Your task to perform on an android device: open the mobile data screen to see how much data has been used Image 0: 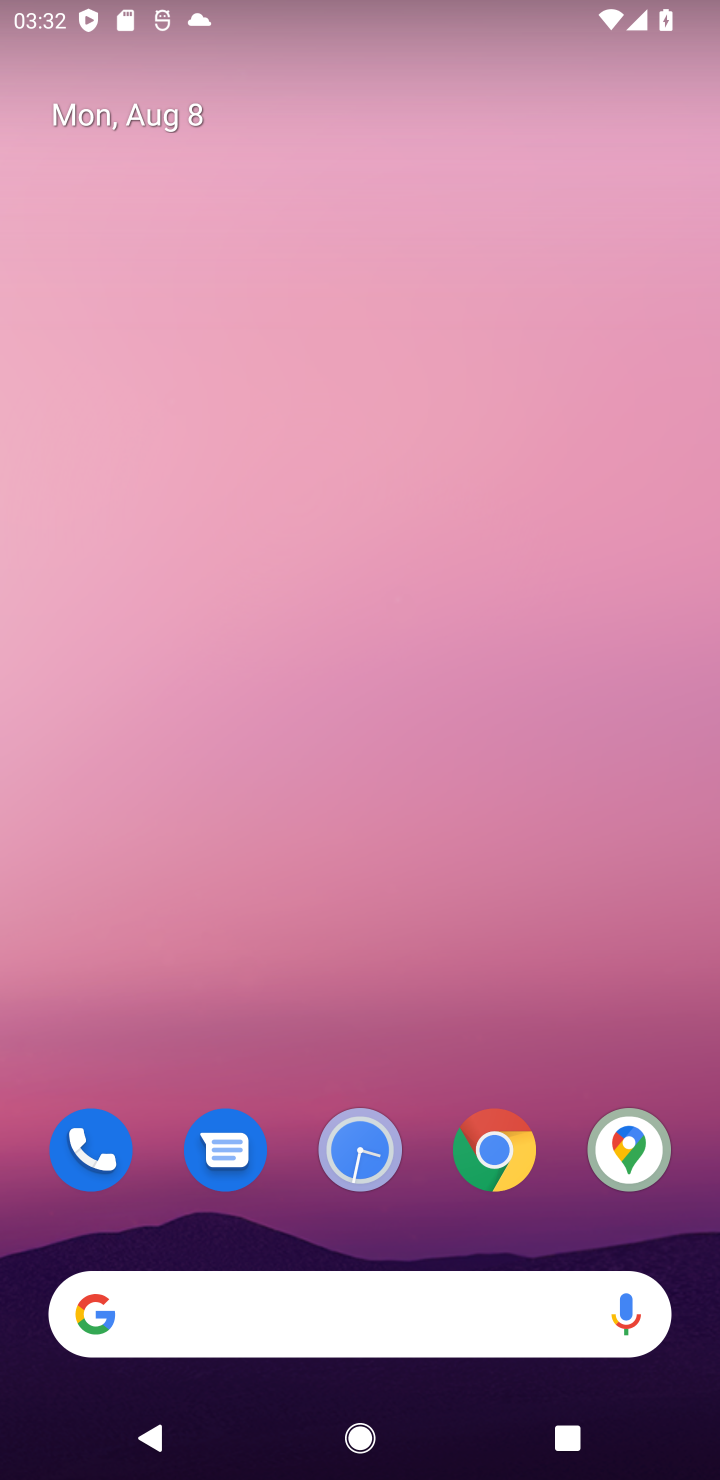
Step 0: drag from (73, 1406) to (455, 518)
Your task to perform on an android device: open the mobile data screen to see how much data has been used Image 1: 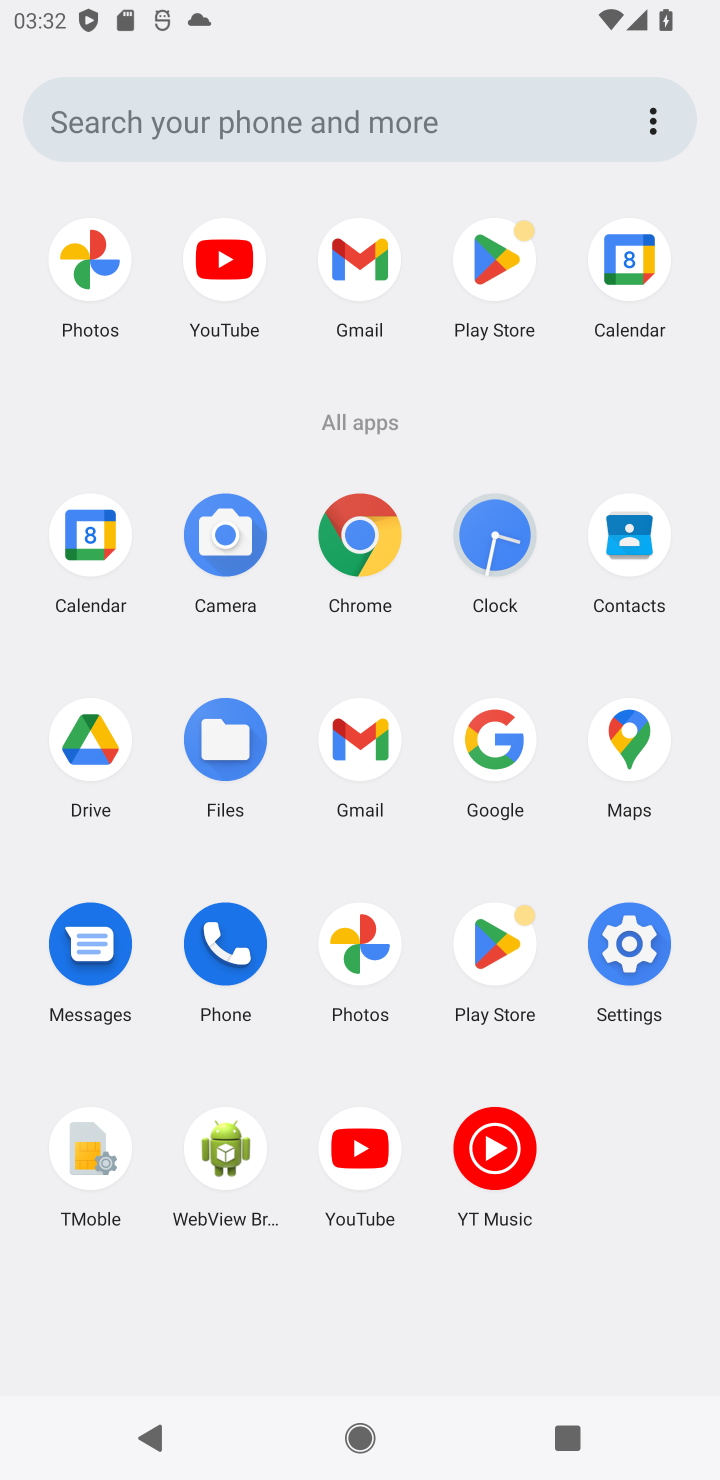
Step 1: click (640, 978)
Your task to perform on an android device: open the mobile data screen to see how much data has been used Image 2: 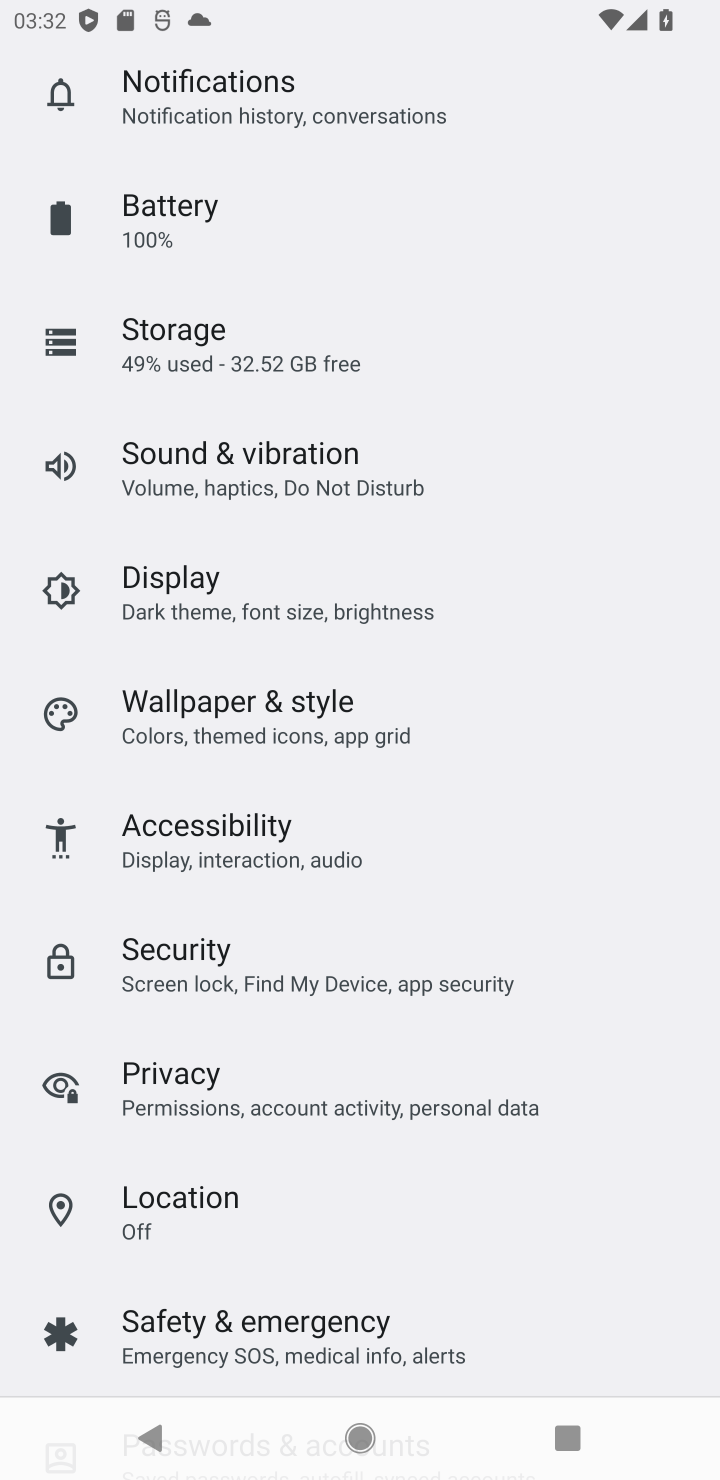
Step 2: drag from (572, 152) to (489, 912)
Your task to perform on an android device: open the mobile data screen to see how much data has been used Image 3: 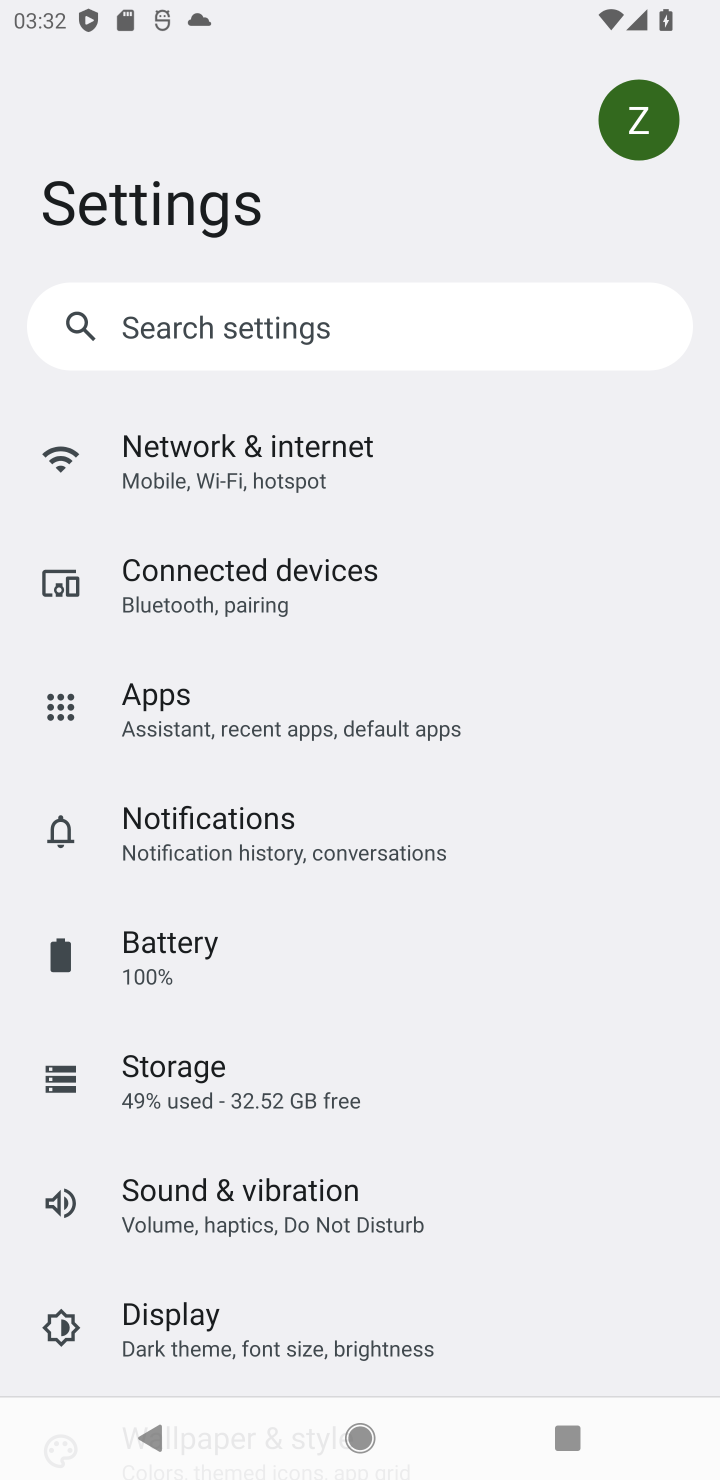
Step 3: click (250, 466)
Your task to perform on an android device: open the mobile data screen to see how much data has been used Image 4: 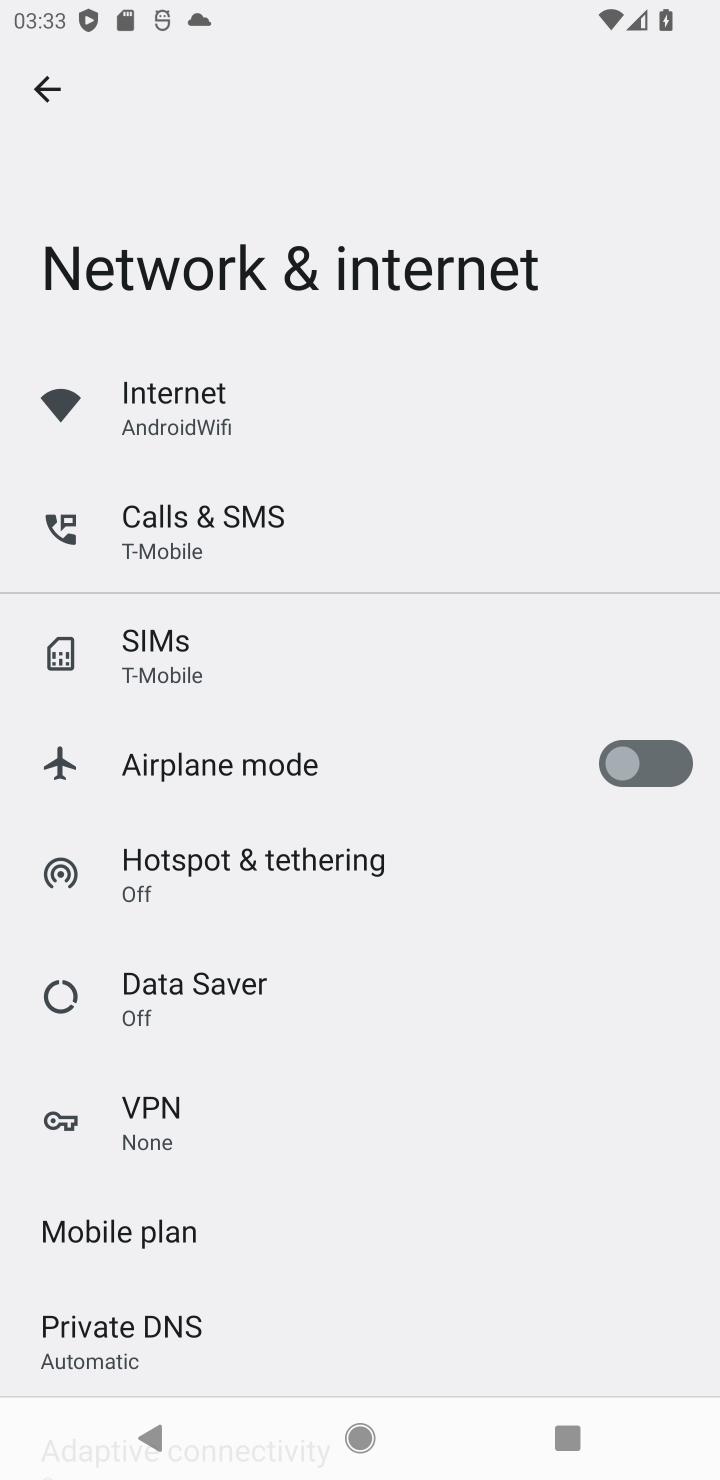
Step 4: click (201, 409)
Your task to perform on an android device: open the mobile data screen to see how much data has been used Image 5: 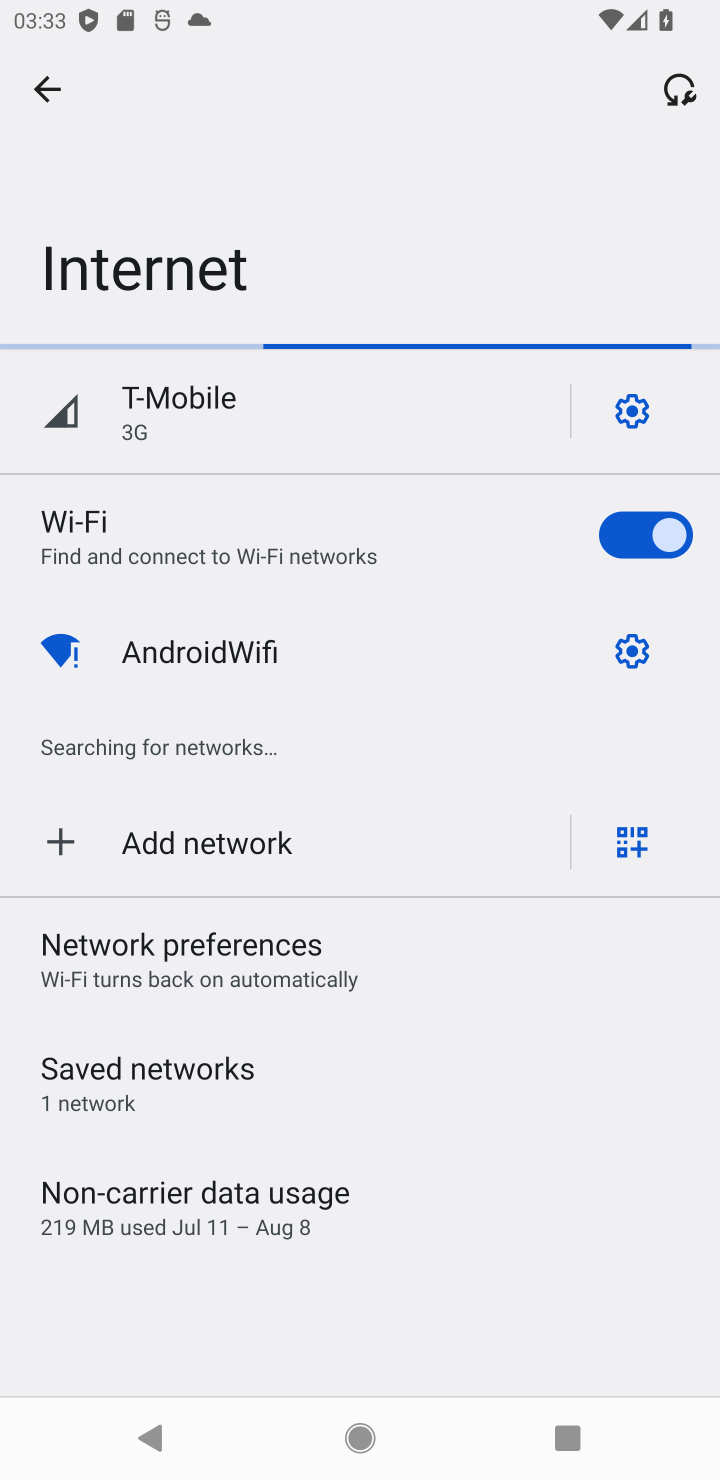
Step 5: click (191, 399)
Your task to perform on an android device: open the mobile data screen to see how much data has been used Image 6: 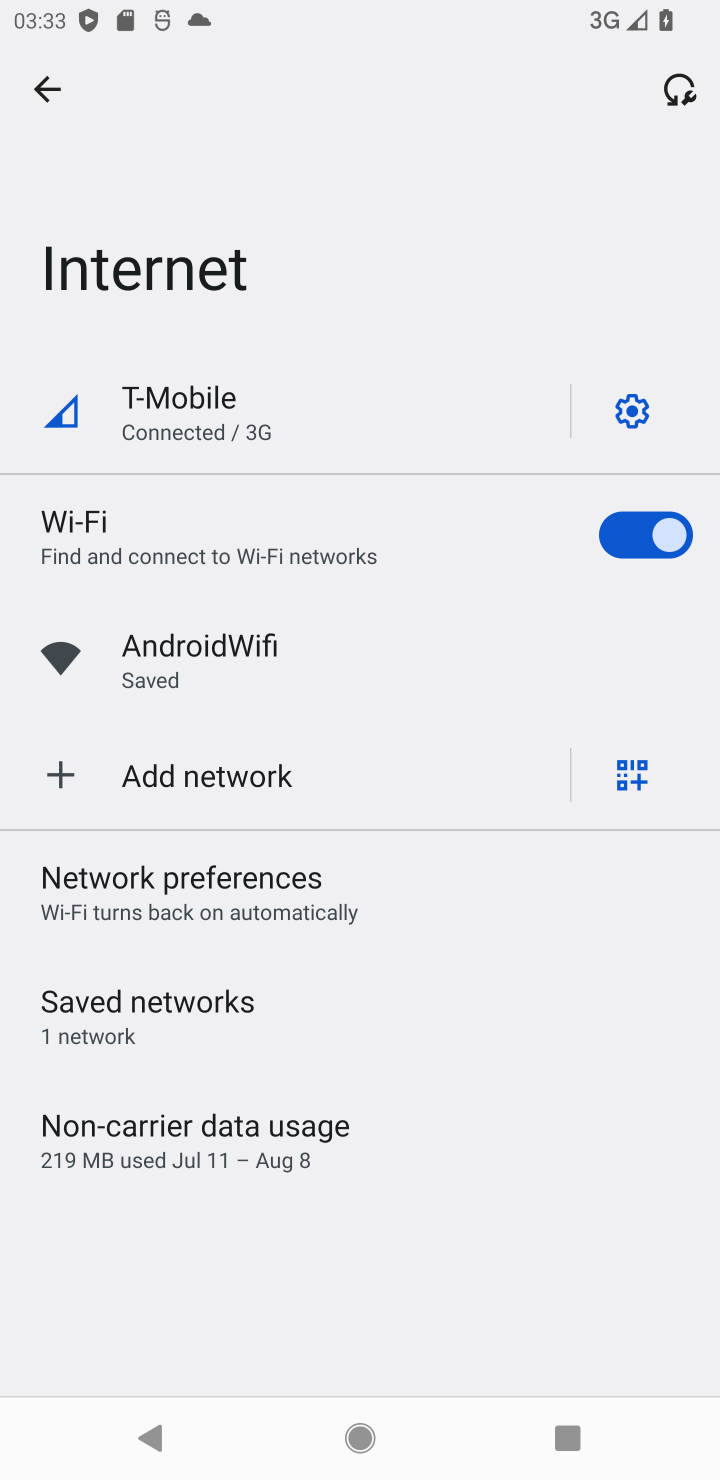
Step 6: click (238, 864)
Your task to perform on an android device: open the mobile data screen to see how much data has been used Image 7: 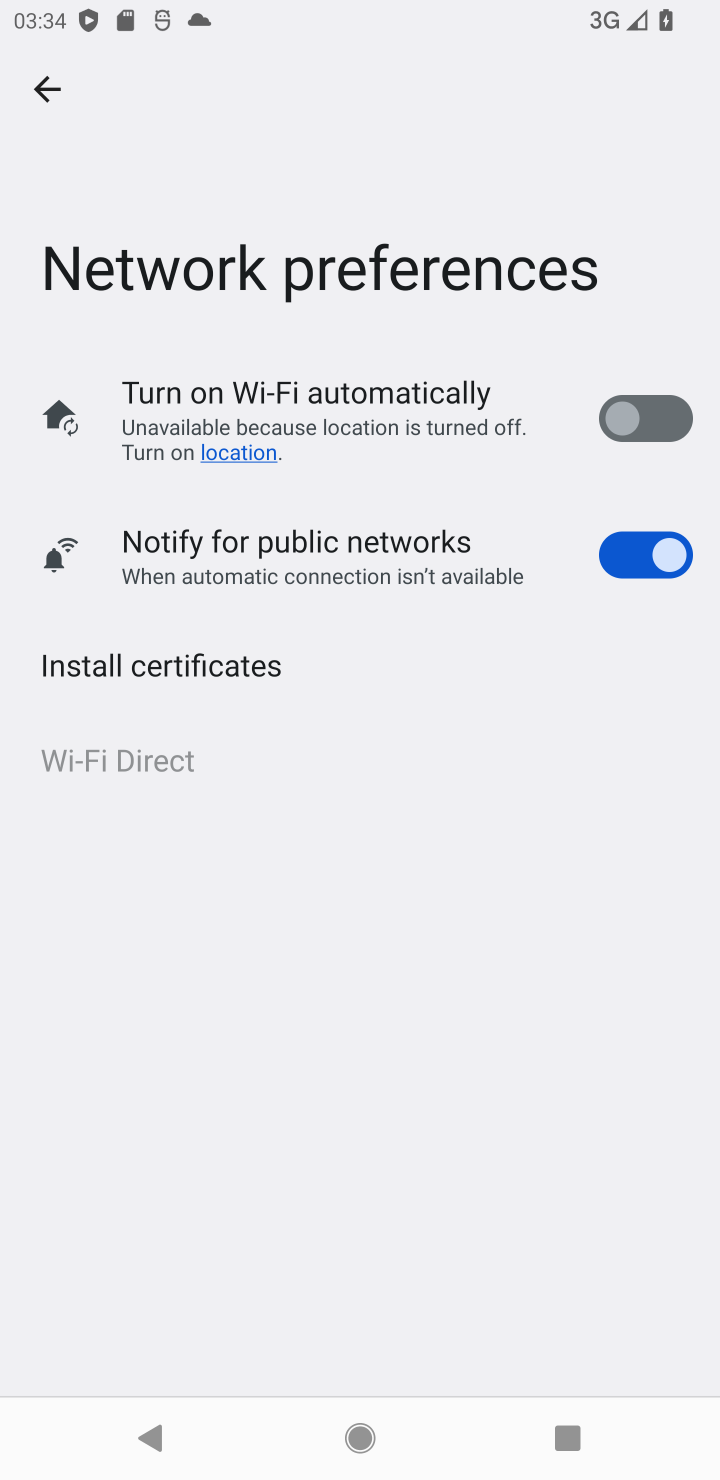
Step 7: task complete